Your task to perform on an android device: turn on the 12-hour format for clock Image 0: 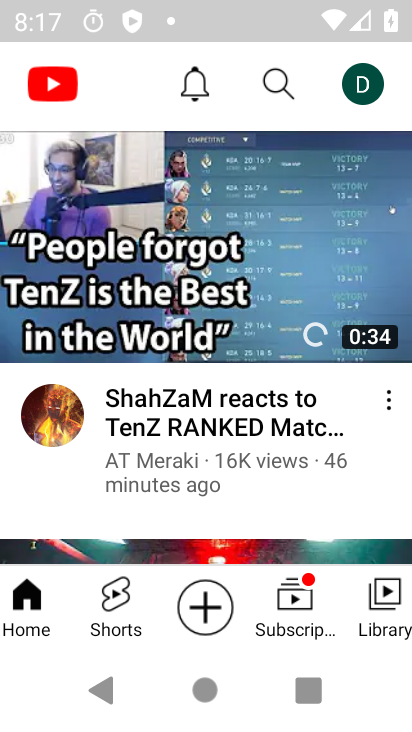
Step 0: press home button
Your task to perform on an android device: turn on the 12-hour format for clock Image 1: 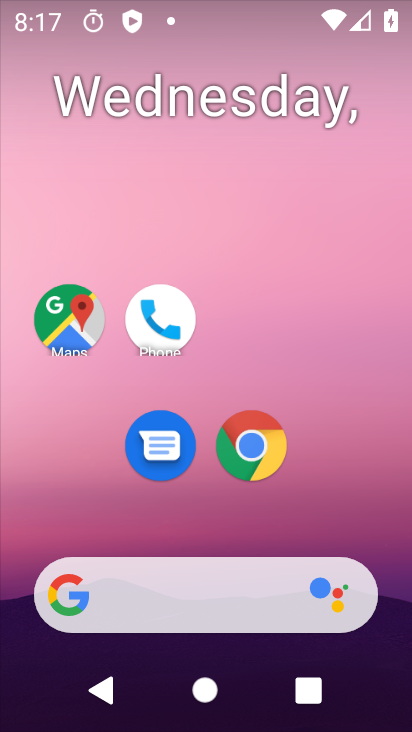
Step 1: drag from (276, 449) to (243, 241)
Your task to perform on an android device: turn on the 12-hour format for clock Image 2: 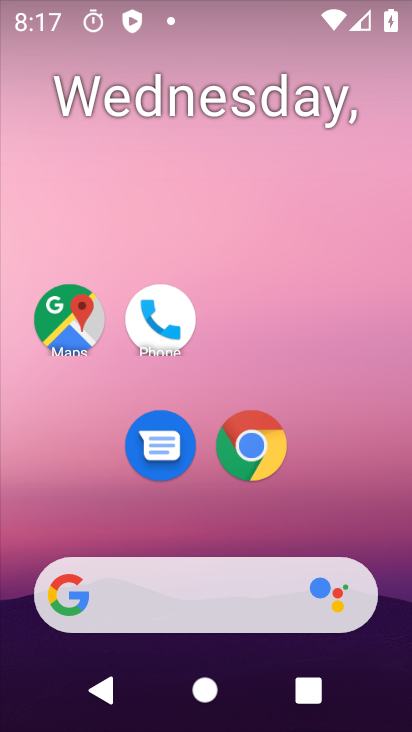
Step 2: drag from (317, 463) to (293, 166)
Your task to perform on an android device: turn on the 12-hour format for clock Image 3: 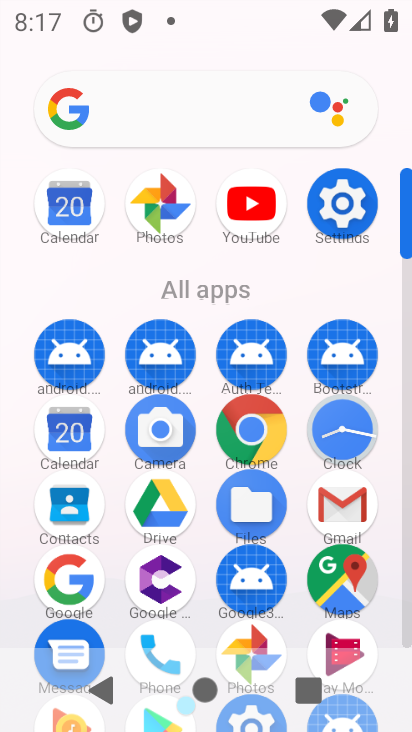
Step 3: click (350, 441)
Your task to perform on an android device: turn on the 12-hour format for clock Image 4: 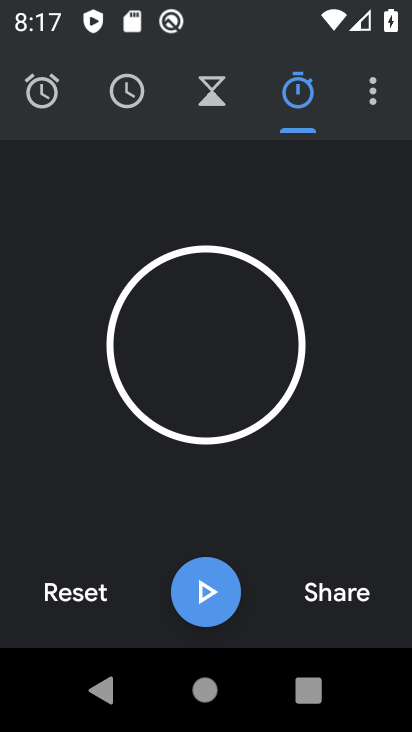
Step 4: click (391, 87)
Your task to perform on an android device: turn on the 12-hour format for clock Image 5: 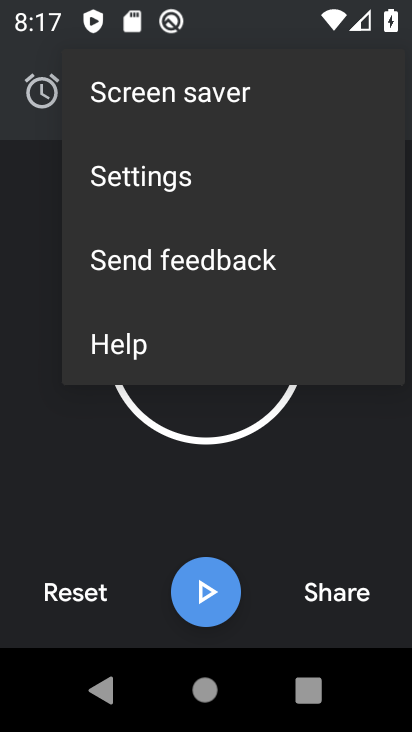
Step 5: click (153, 184)
Your task to perform on an android device: turn on the 12-hour format for clock Image 6: 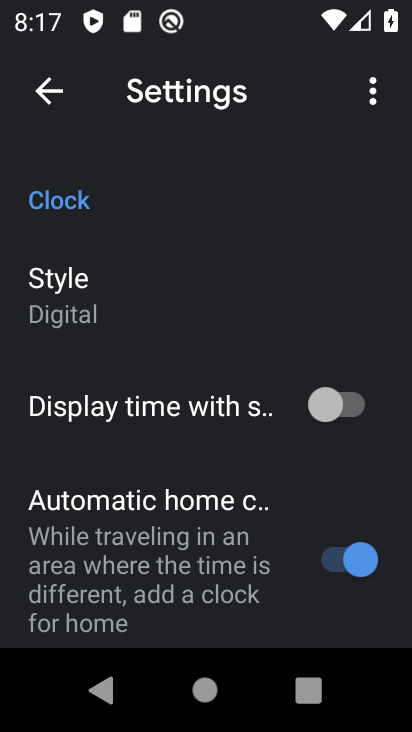
Step 6: drag from (180, 526) to (234, 193)
Your task to perform on an android device: turn on the 12-hour format for clock Image 7: 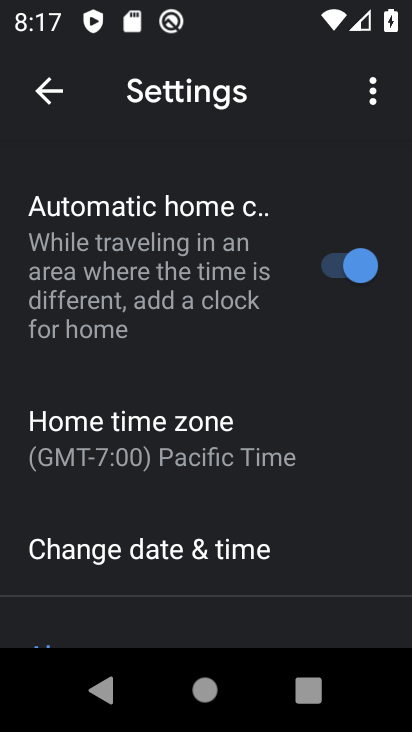
Step 7: click (116, 571)
Your task to perform on an android device: turn on the 12-hour format for clock Image 8: 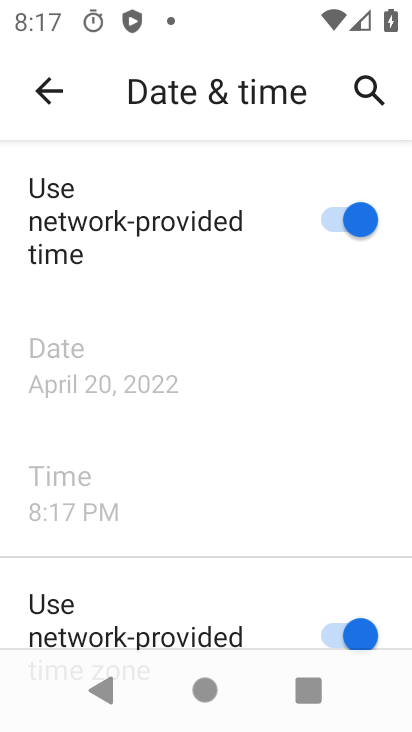
Step 8: task complete